Your task to perform on an android device: toggle improve location accuracy Image 0: 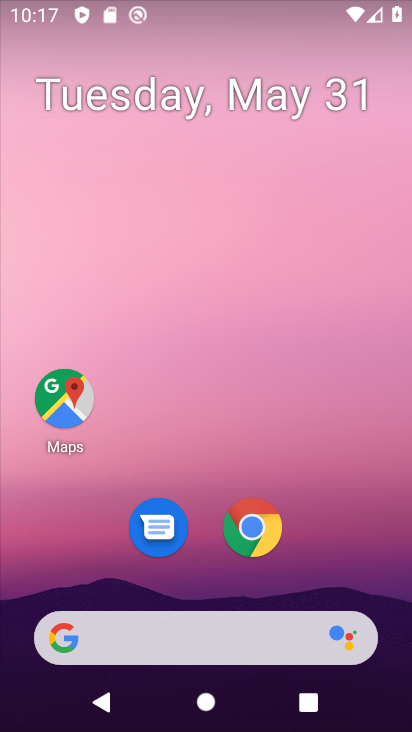
Step 0: drag from (391, 617) to (318, 174)
Your task to perform on an android device: toggle improve location accuracy Image 1: 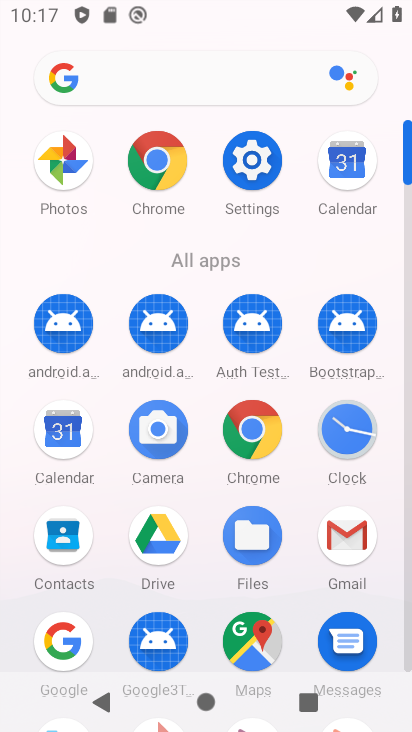
Step 1: click (261, 175)
Your task to perform on an android device: toggle improve location accuracy Image 2: 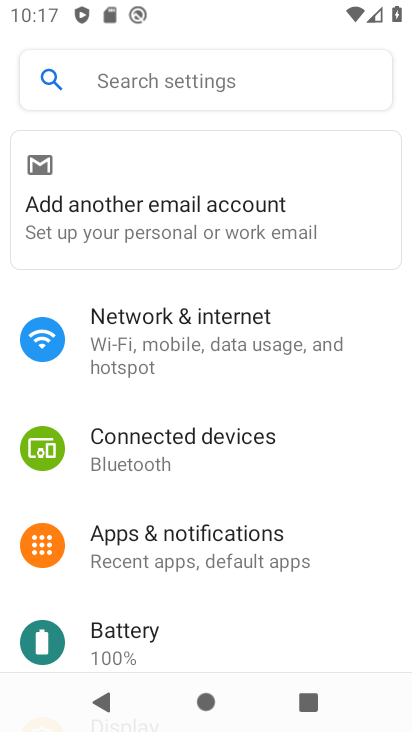
Step 2: drag from (263, 612) to (229, 193)
Your task to perform on an android device: toggle improve location accuracy Image 3: 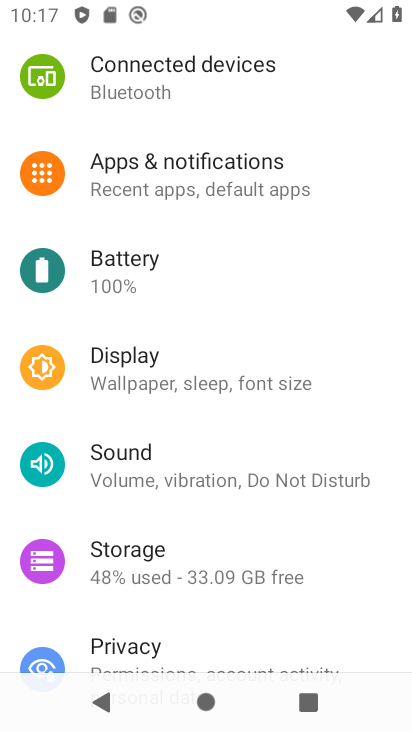
Step 3: drag from (244, 587) to (227, 169)
Your task to perform on an android device: toggle improve location accuracy Image 4: 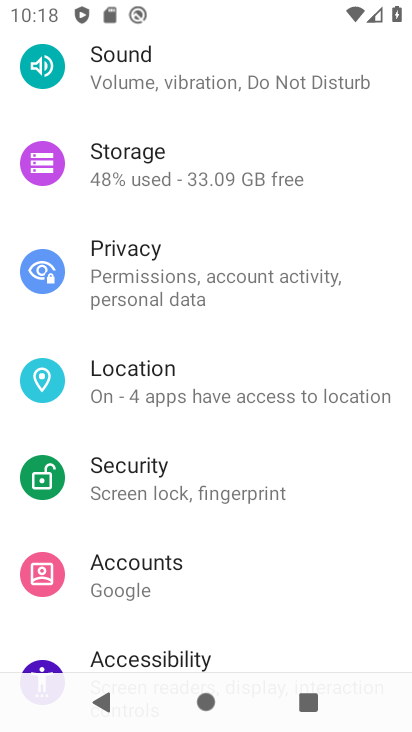
Step 4: click (266, 375)
Your task to perform on an android device: toggle improve location accuracy Image 5: 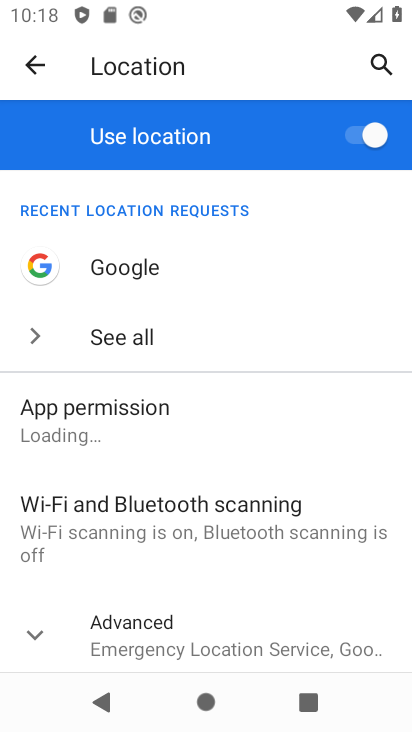
Step 5: drag from (277, 603) to (247, 314)
Your task to perform on an android device: toggle improve location accuracy Image 6: 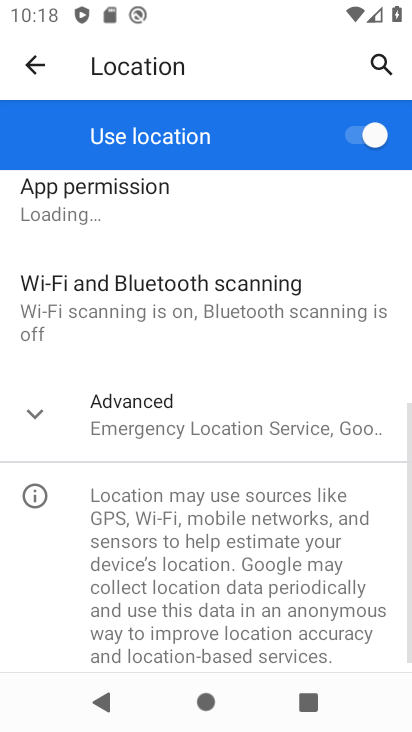
Step 6: click (237, 448)
Your task to perform on an android device: toggle improve location accuracy Image 7: 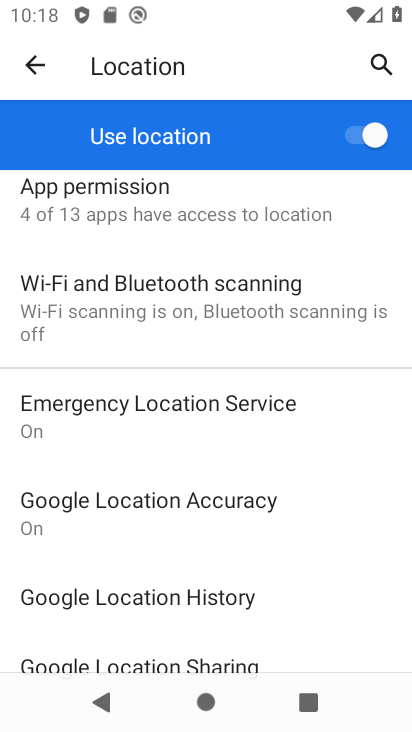
Step 7: click (237, 490)
Your task to perform on an android device: toggle improve location accuracy Image 8: 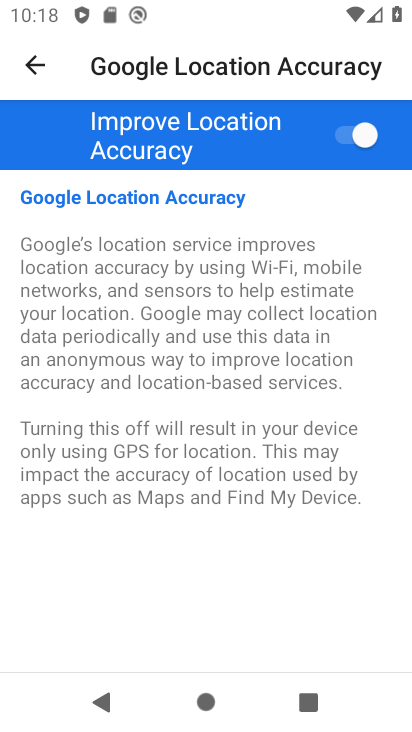
Step 8: click (370, 134)
Your task to perform on an android device: toggle improve location accuracy Image 9: 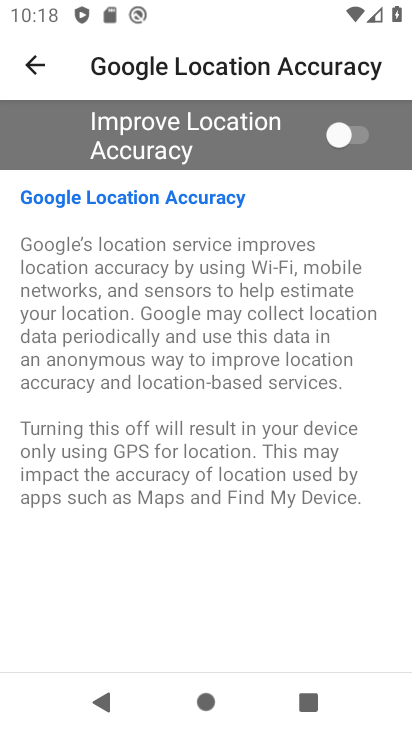
Step 9: task complete